Your task to perform on an android device: Open privacy settings Image 0: 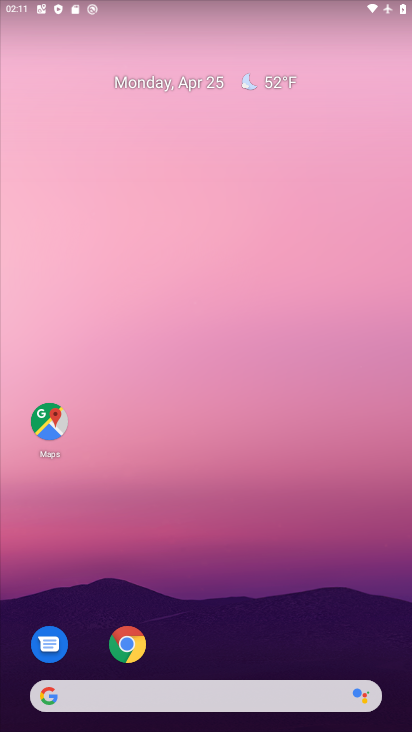
Step 0: drag from (281, 645) to (260, 220)
Your task to perform on an android device: Open privacy settings Image 1: 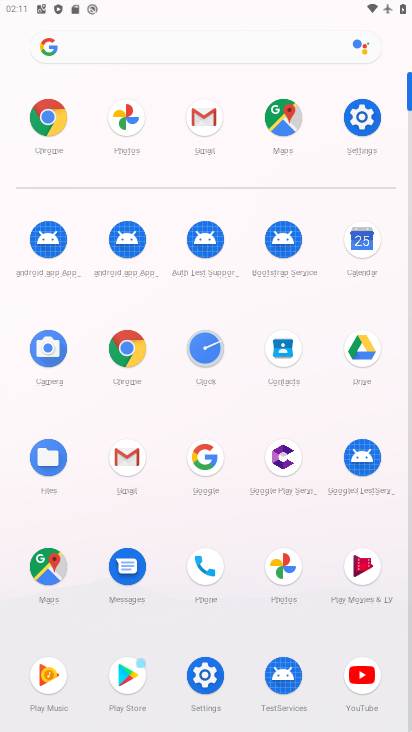
Step 1: click (368, 146)
Your task to perform on an android device: Open privacy settings Image 2: 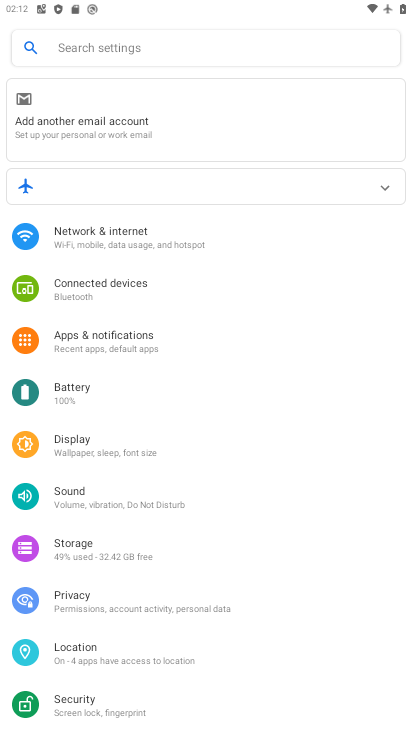
Step 2: drag from (116, 678) to (150, 285)
Your task to perform on an android device: Open privacy settings Image 3: 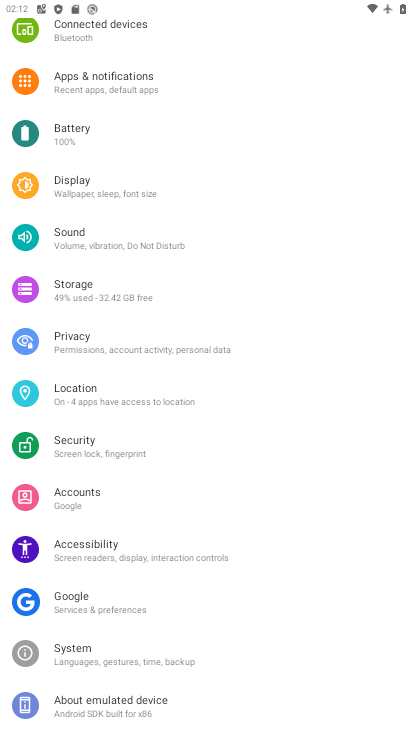
Step 3: click (142, 331)
Your task to perform on an android device: Open privacy settings Image 4: 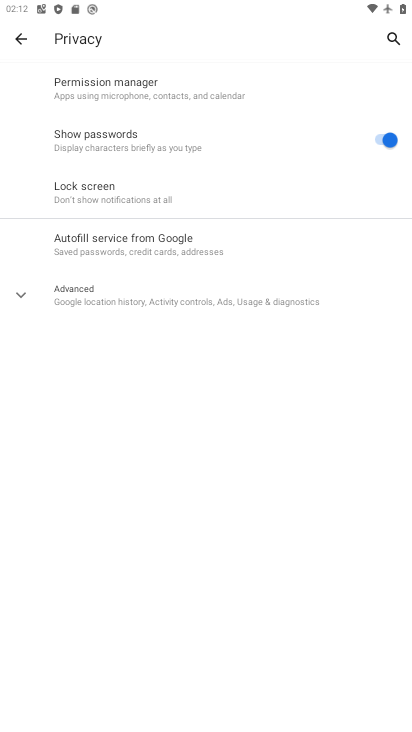
Step 4: task complete